Your task to perform on an android device: Open the web browser Image 0: 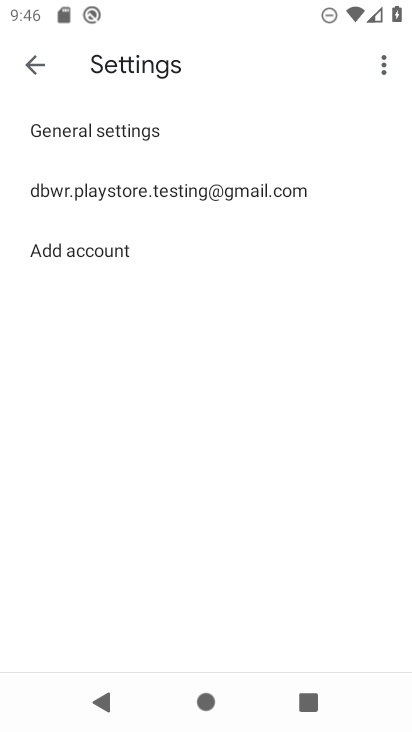
Step 0: press back button
Your task to perform on an android device: Open the web browser Image 1: 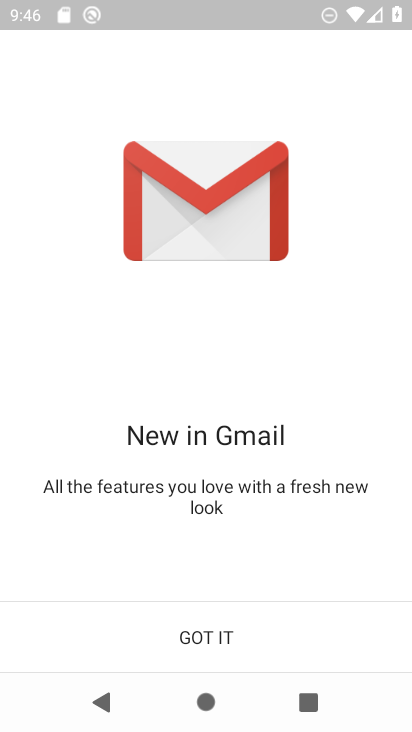
Step 1: press back button
Your task to perform on an android device: Open the web browser Image 2: 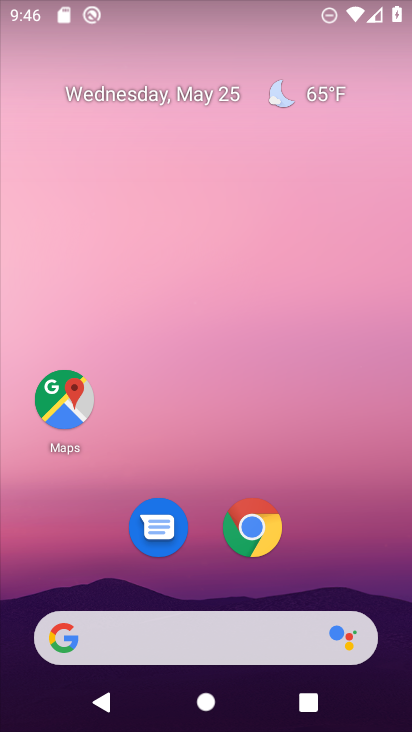
Step 2: click (253, 529)
Your task to perform on an android device: Open the web browser Image 3: 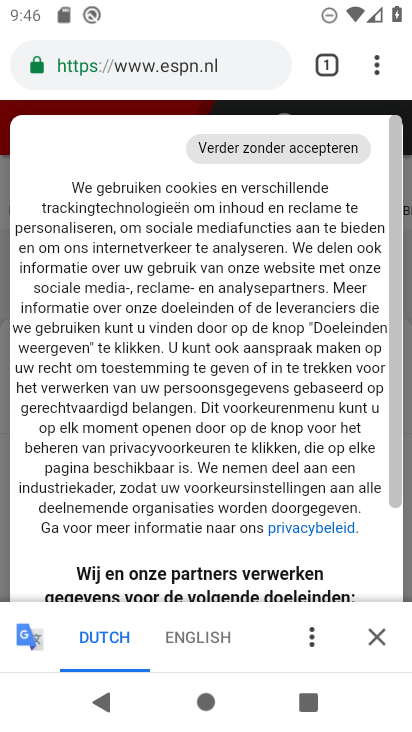
Step 3: task complete